Your task to perform on an android device: add a contact in the contacts app Image 0: 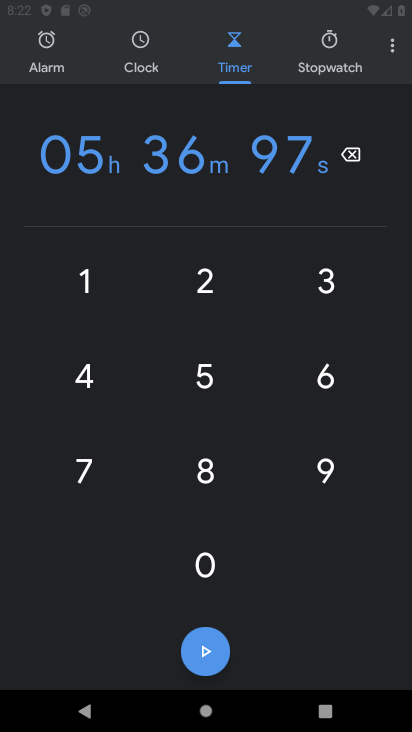
Step 0: press home button
Your task to perform on an android device: add a contact in the contacts app Image 1: 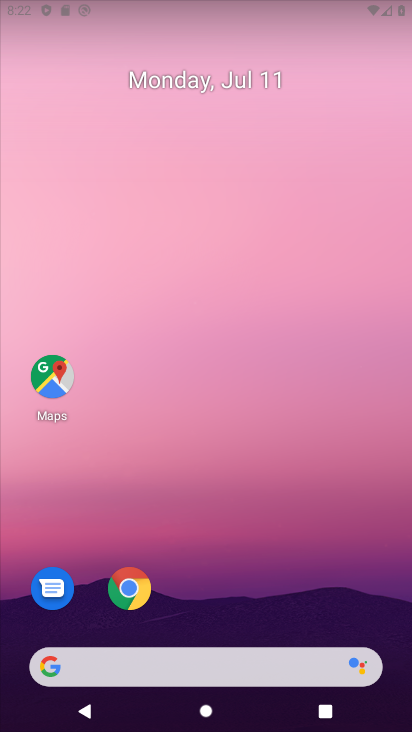
Step 1: drag from (159, 688) to (238, 105)
Your task to perform on an android device: add a contact in the contacts app Image 2: 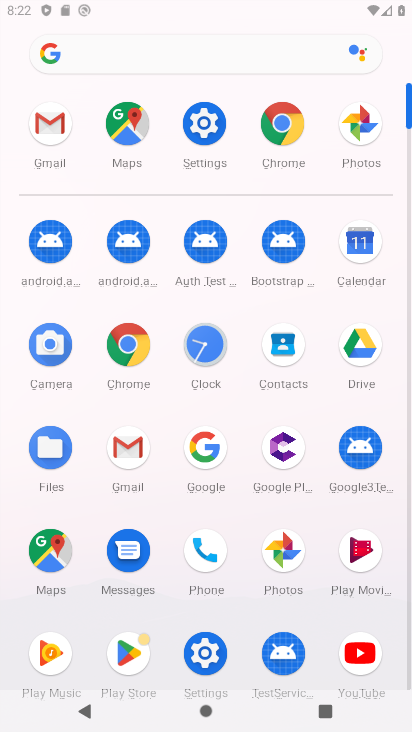
Step 2: click (287, 351)
Your task to perform on an android device: add a contact in the contacts app Image 3: 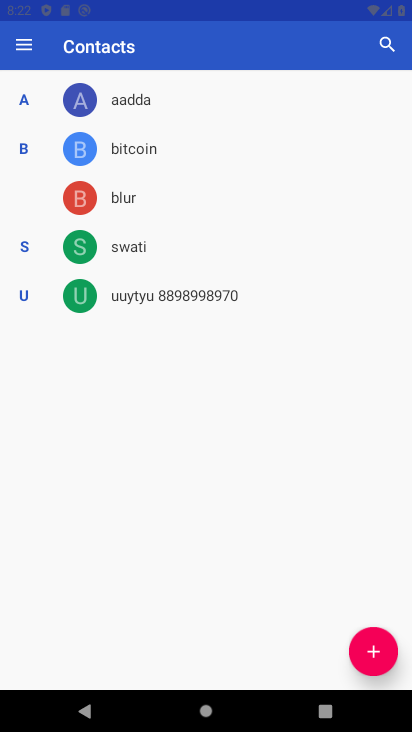
Step 3: click (379, 649)
Your task to perform on an android device: add a contact in the contacts app Image 4: 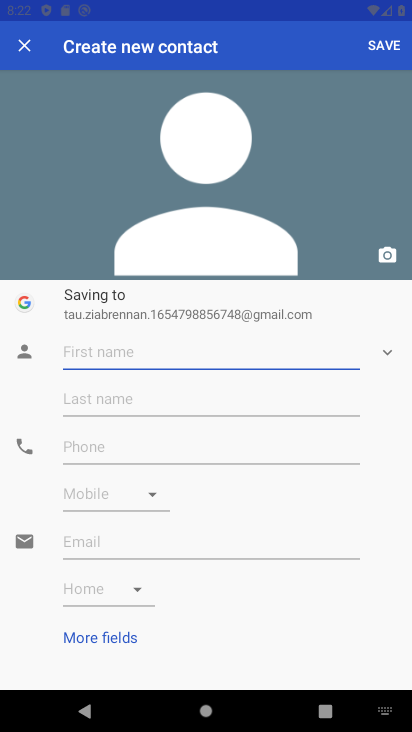
Step 4: type "uyi"
Your task to perform on an android device: add a contact in the contacts app Image 5: 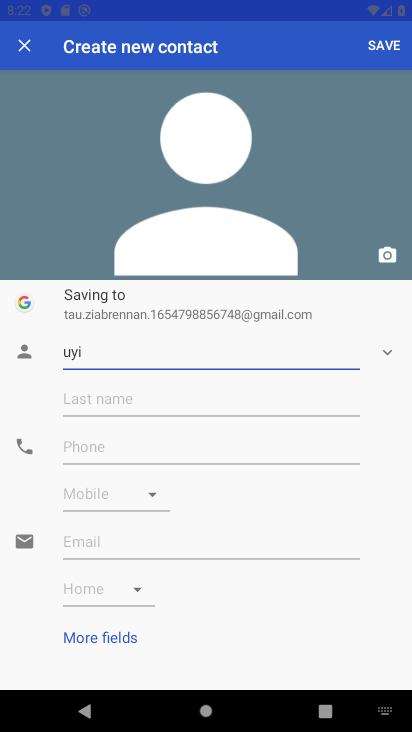
Step 5: click (122, 439)
Your task to perform on an android device: add a contact in the contacts app Image 6: 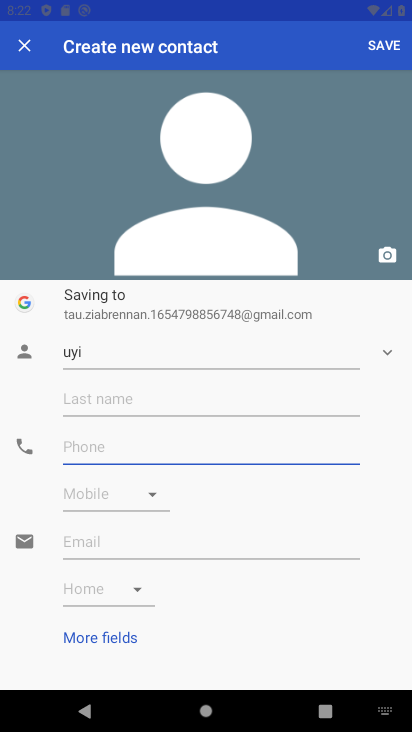
Step 6: type "8789"
Your task to perform on an android device: add a contact in the contacts app Image 7: 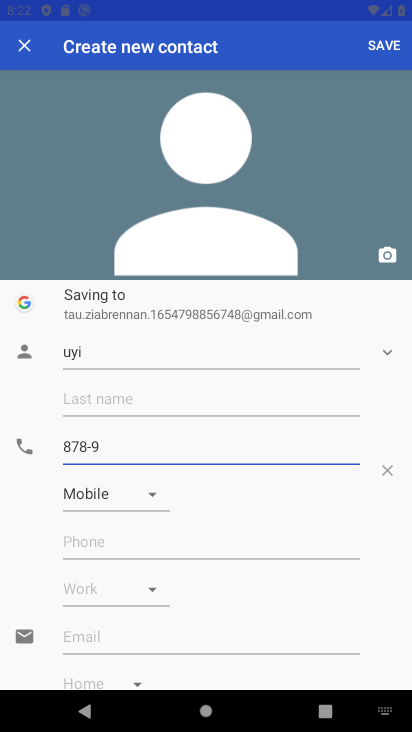
Step 7: click (379, 38)
Your task to perform on an android device: add a contact in the contacts app Image 8: 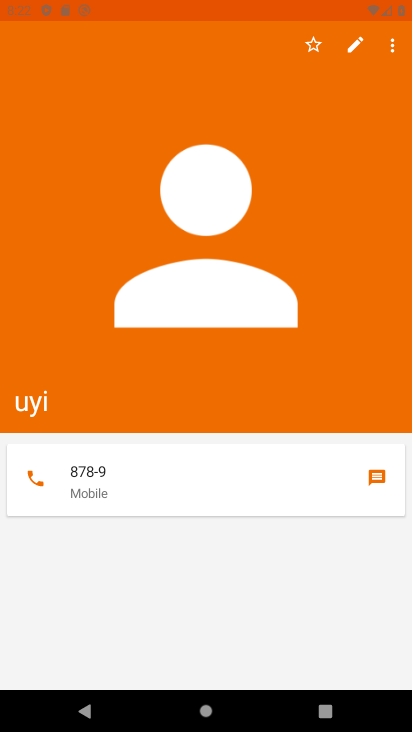
Step 8: task complete